Your task to perform on an android device: Search for vegetarian restaurants on Maps Image 0: 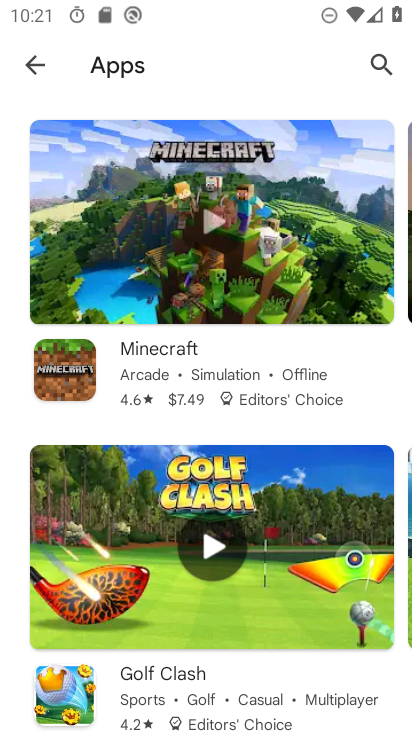
Step 0: press home button
Your task to perform on an android device: Search for vegetarian restaurants on Maps Image 1: 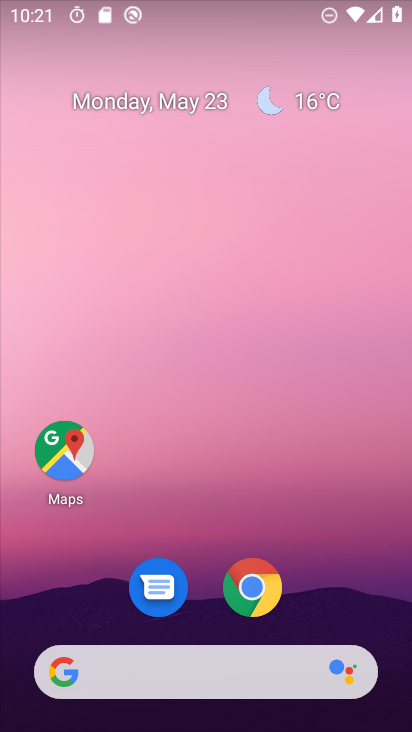
Step 1: click (49, 439)
Your task to perform on an android device: Search for vegetarian restaurants on Maps Image 2: 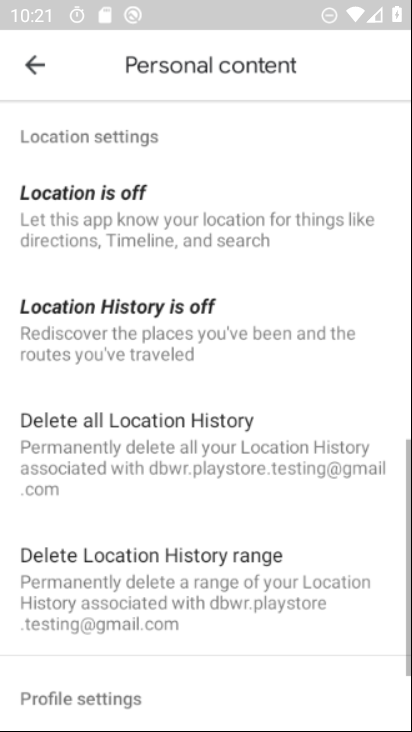
Step 2: click (13, 46)
Your task to perform on an android device: Search for vegetarian restaurants on Maps Image 3: 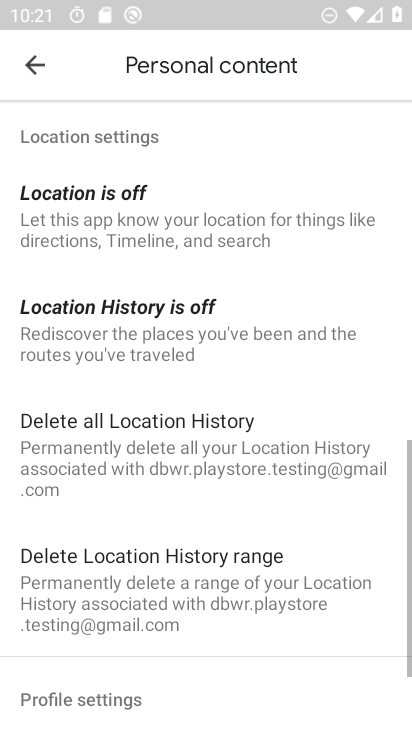
Step 3: click (32, 65)
Your task to perform on an android device: Search for vegetarian restaurants on Maps Image 4: 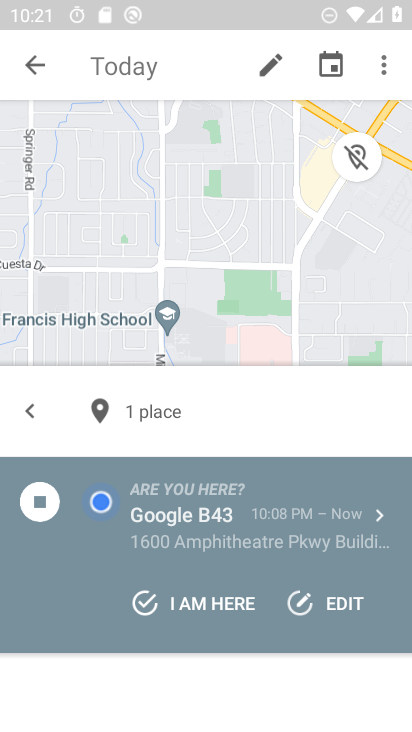
Step 4: click (27, 58)
Your task to perform on an android device: Search for vegetarian restaurants on Maps Image 5: 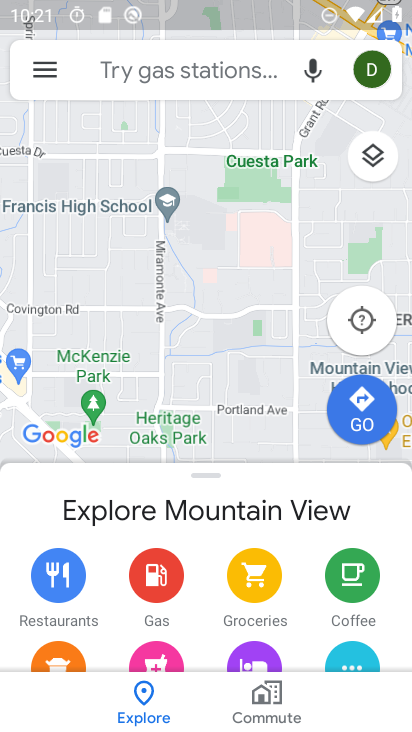
Step 5: click (184, 71)
Your task to perform on an android device: Search for vegetarian restaurants on Maps Image 6: 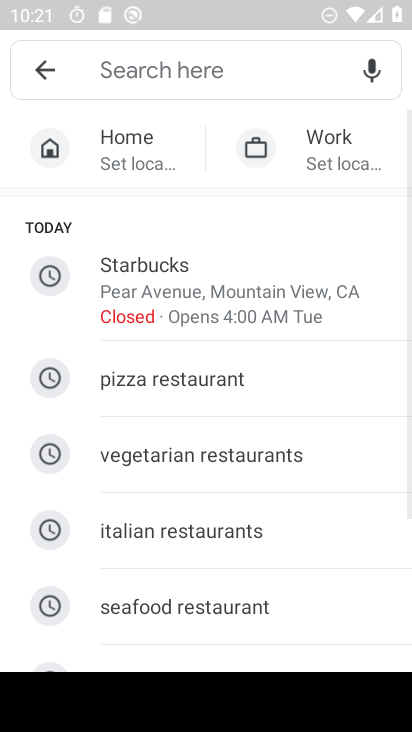
Step 6: click (185, 451)
Your task to perform on an android device: Search for vegetarian restaurants on Maps Image 7: 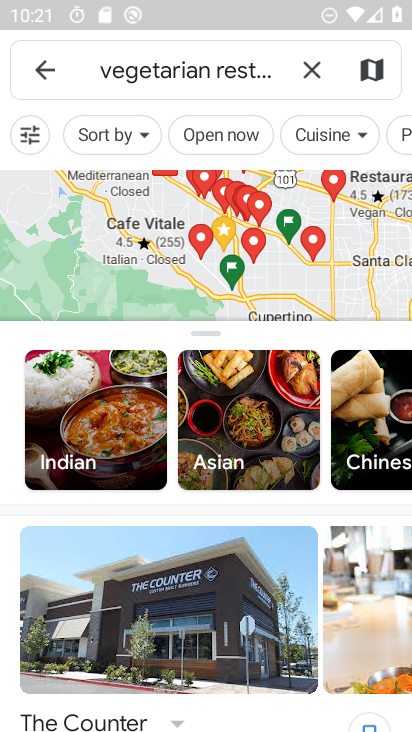
Step 7: task complete